Your task to perform on an android device: toggle priority inbox in the gmail app Image 0: 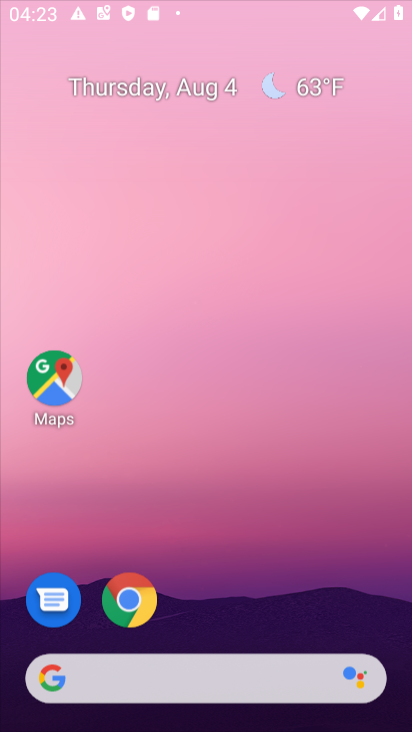
Step 0: click (348, 236)
Your task to perform on an android device: toggle priority inbox in the gmail app Image 1: 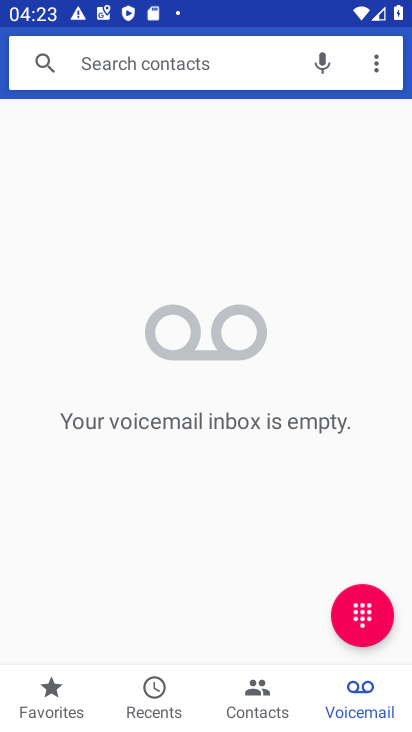
Step 1: press home button
Your task to perform on an android device: toggle priority inbox in the gmail app Image 2: 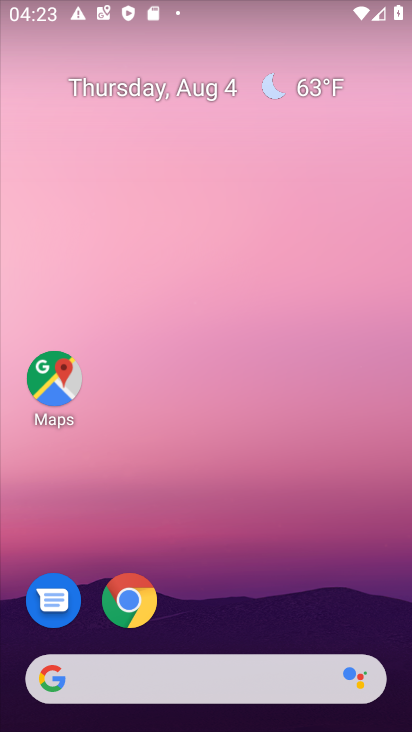
Step 2: drag from (250, 588) to (286, 111)
Your task to perform on an android device: toggle priority inbox in the gmail app Image 3: 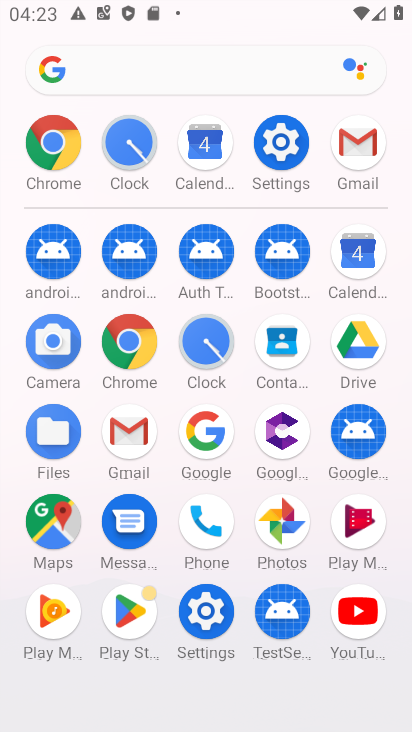
Step 3: click (132, 417)
Your task to perform on an android device: toggle priority inbox in the gmail app Image 4: 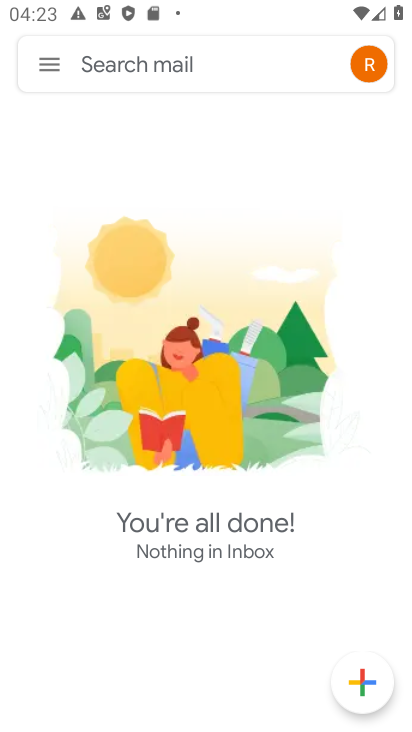
Step 4: click (50, 67)
Your task to perform on an android device: toggle priority inbox in the gmail app Image 5: 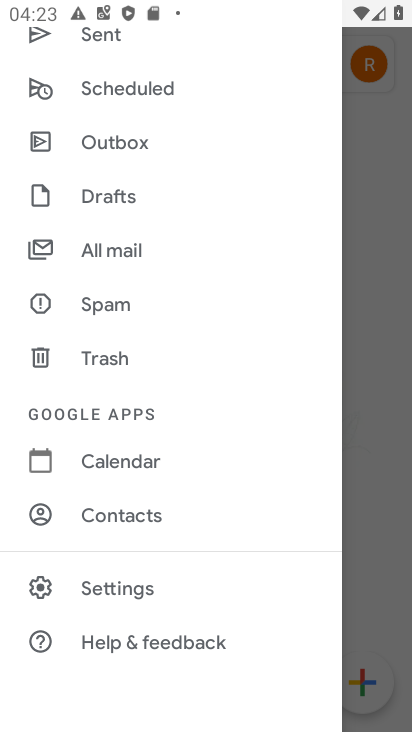
Step 5: click (125, 591)
Your task to perform on an android device: toggle priority inbox in the gmail app Image 6: 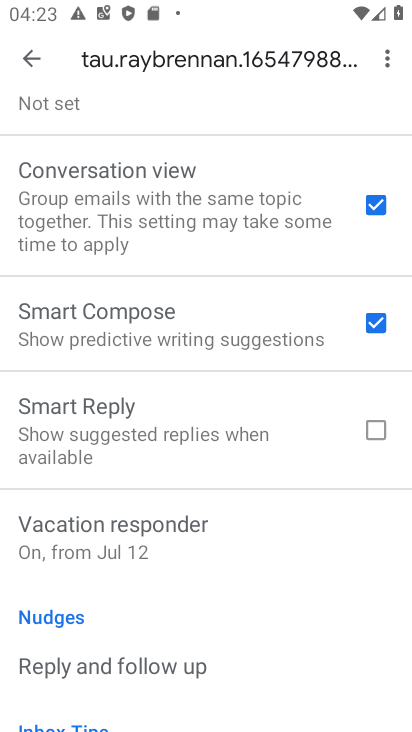
Step 6: drag from (214, 158) to (209, 582)
Your task to perform on an android device: toggle priority inbox in the gmail app Image 7: 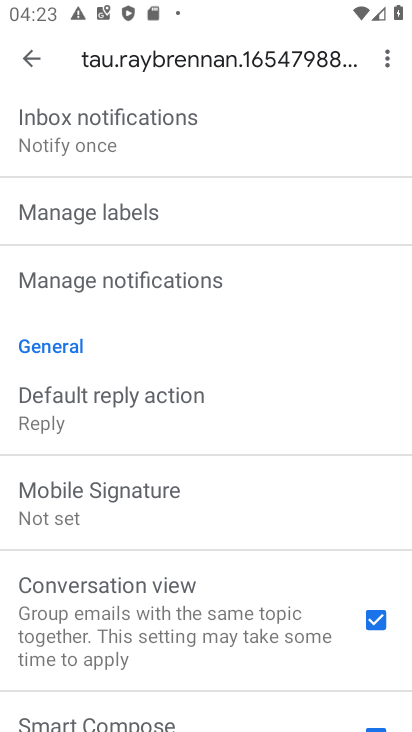
Step 7: drag from (194, 186) to (163, 471)
Your task to perform on an android device: toggle priority inbox in the gmail app Image 8: 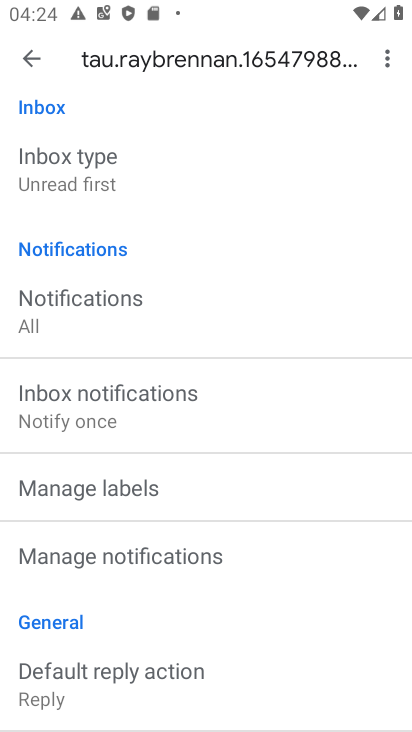
Step 8: drag from (176, 163) to (153, 528)
Your task to perform on an android device: toggle priority inbox in the gmail app Image 9: 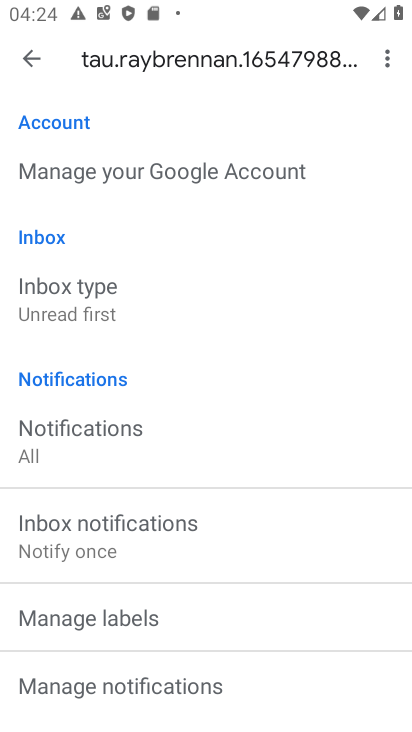
Step 9: click (95, 297)
Your task to perform on an android device: toggle priority inbox in the gmail app Image 10: 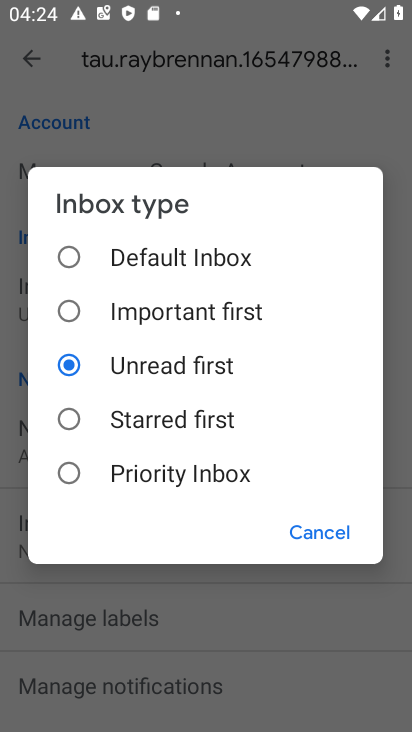
Step 10: click (185, 484)
Your task to perform on an android device: toggle priority inbox in the gmail app Image 11: 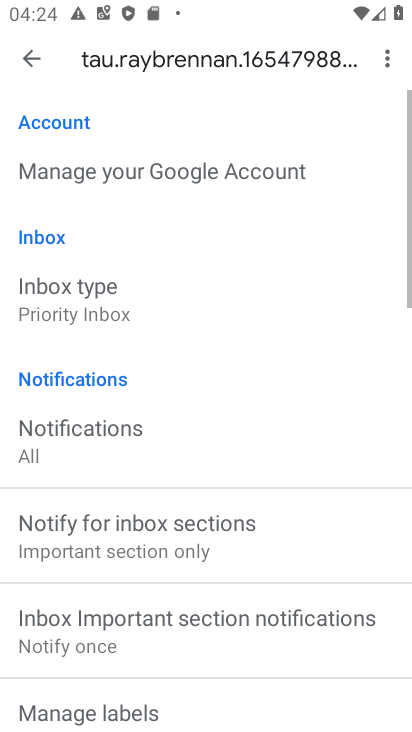
Step 11: task complete